Your task to perform on an android device: turn off javascript in the chrome app Image 0: 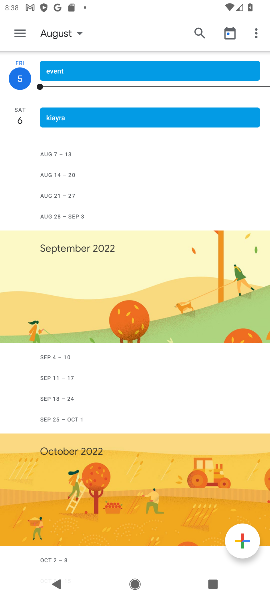
Step 0: press back button
Your task to perform on an android device: turn off javascript in the chrome app Image 1: 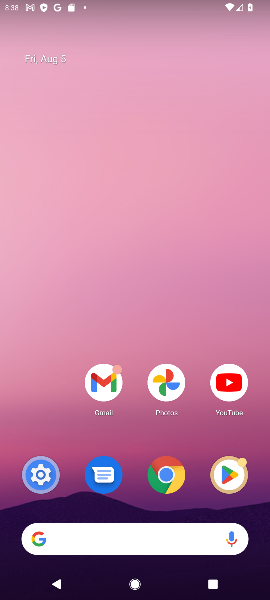
Step 1: click (168, 461)
Your task to perform on an android device: turn off javascript in the chrome app Image 2: 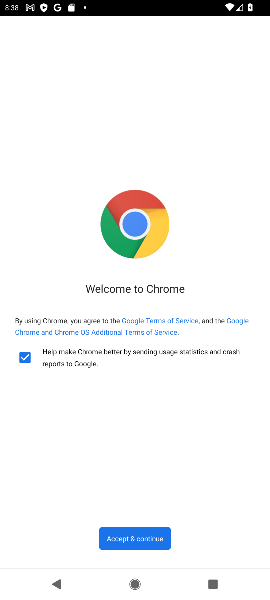
Step 2: click (143, 541)
Your task to perform on an android device: turn off javascript in the chrome app Image 3: 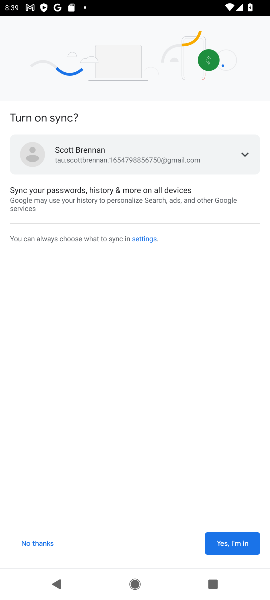
Step 3: click (222, 546)
Your task to perform on an android device: turn off javascript in the chrome app Image 4: 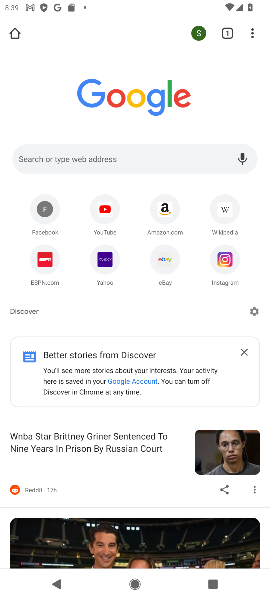
Step 4: click (257, 33)
Your task to perform on an android device: turn off javascript in the chrome app Image 5: 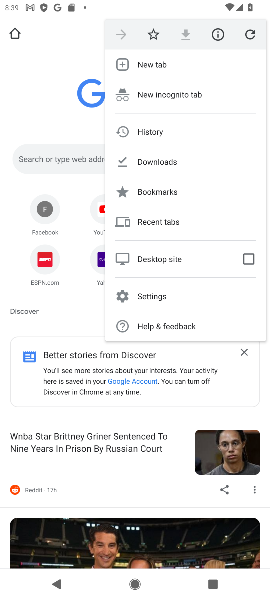
Step 5: click (156, 295)
Your task to perform on an android device: turn off javascript in the chrome app Image 6: 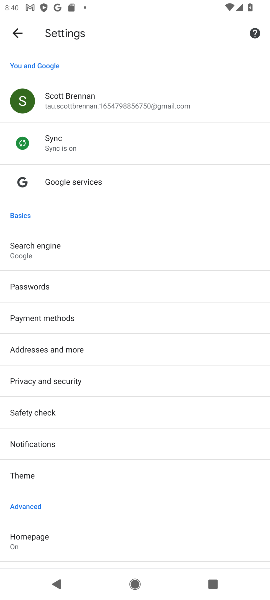
Step 6: press home button
Your task to perform on an android device: turn off javascript in the chrome app Image 7: 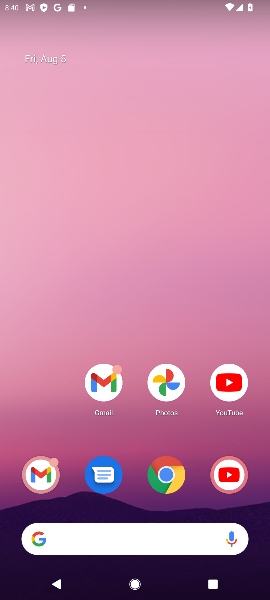
Step 7: click (178, 481)
Your task to perform on an android device: turn off javascript in the chrome app Image 8: 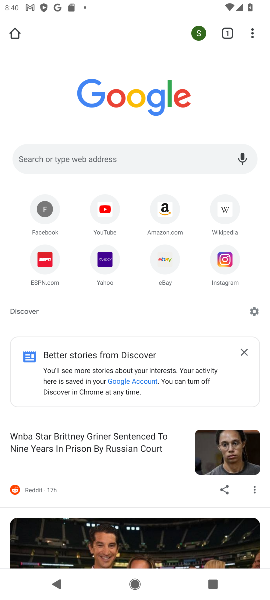
Step 8: click (250, 29)
Your task to perform on an android device: turn off javascript in the chrome app Image 9: 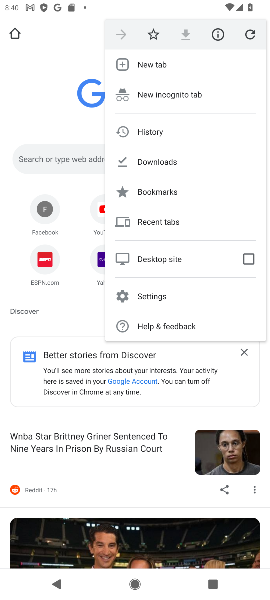
Step 9: click (169, 294)
Your task to perform on an android device: turn off javascript in the chrome app Image 10: 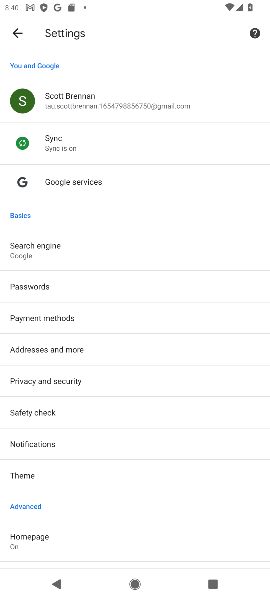
Step 10: drag from (125, 459) to (127, 333)
Your task to perform on an android device: turn off javascript in the chrome app Image 11: 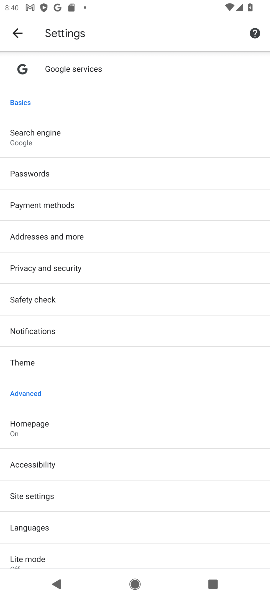
Step 11: drag from (47, 535) to (57, 486)
Your task to perform on an android device: turn off javascript in the chrome app Image 12: 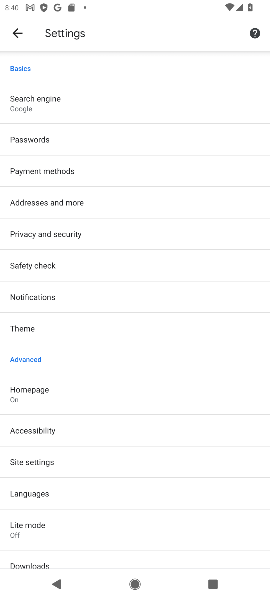
Step 12: click (47, 467)
Your task to perform on an android device: turn off javascript in the chrome app Image 13: 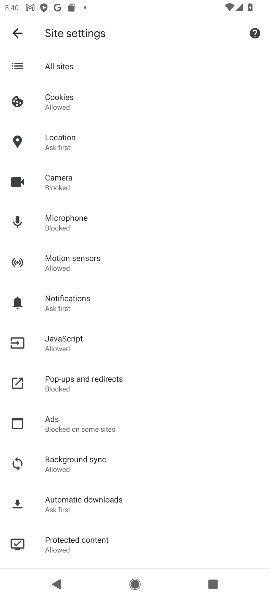
Step 13: click (77, 338)
Your task to perform on an android device: turn off javascript in the chrome app Image 14: 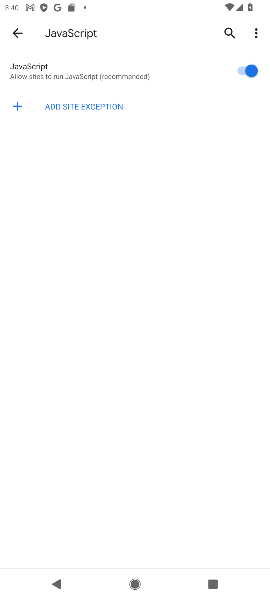
Step 14: click (246, 68)
Your task to perform on an android device: turn off javascript in the chrome app Image 15: 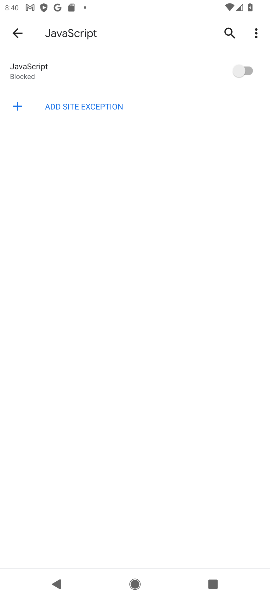
Step 15: task complete